Your task to perform on an android device: Go to Reddit.com Image 0: 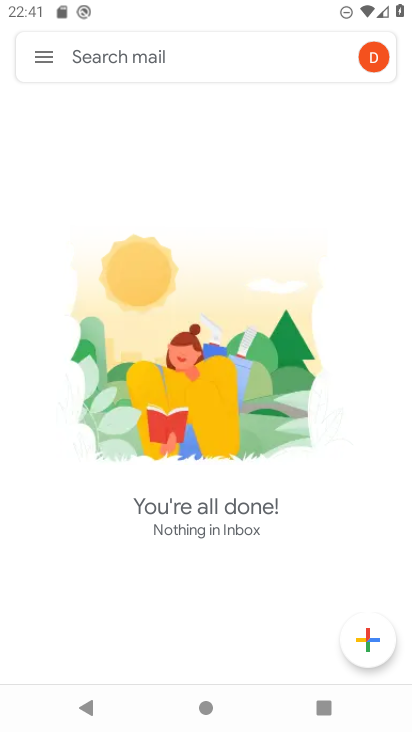
Step 0: press home button
Your task to perform on an android device: Go to Reddit.com Image 1: 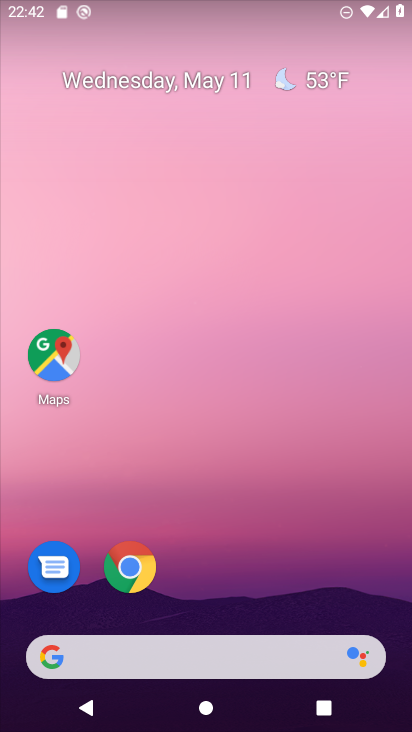
Step 1: click (207, 658)
Your task to perform on an android device: Go to Reddit.com Image 2: 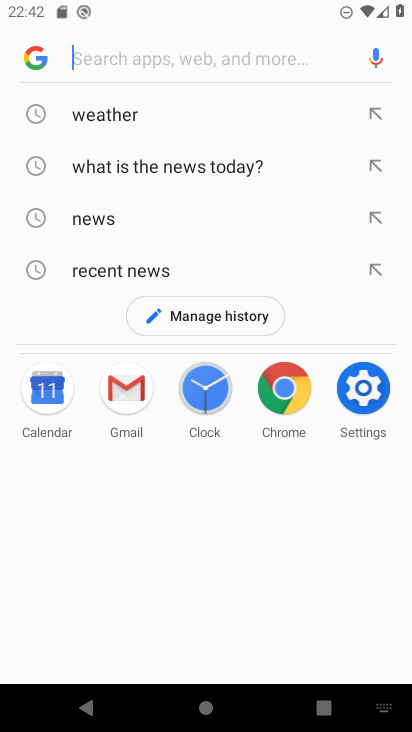
Step 2: type "reddit.com"
Your task to perform on an android device: Go to Reddit.com Image 3: 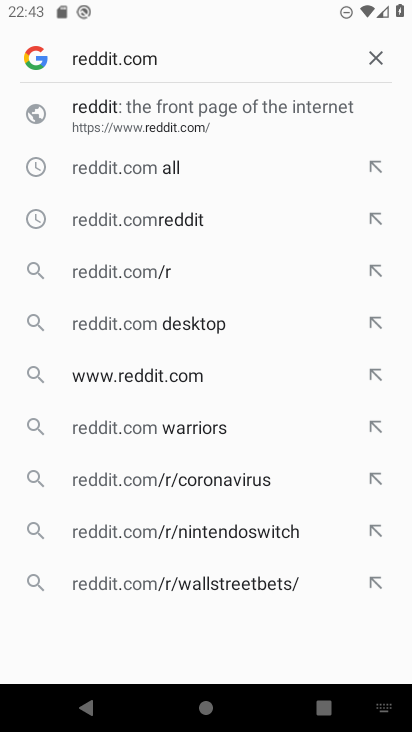
Step 3: click (172, 116)
Your task to perform on an android device: Go to Reddit.com Image 4: 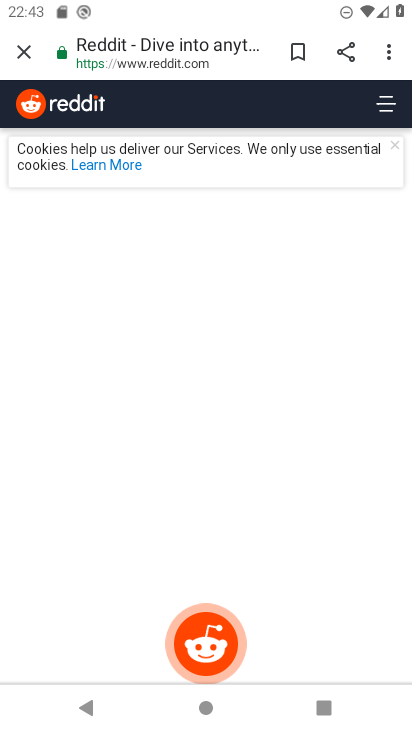
Step 4: task complete